Your task to perform on an android device: Go to network settings Image 0: 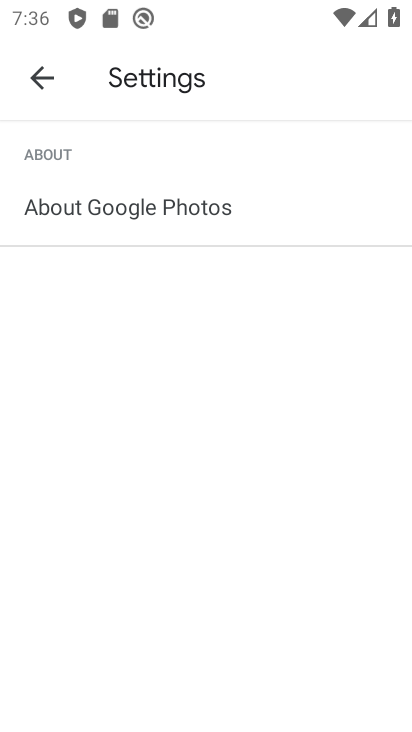
Step 0: drag from (253, 469) to (305, 235)
Your task to perform on an android device: Go to network settings Image 1: 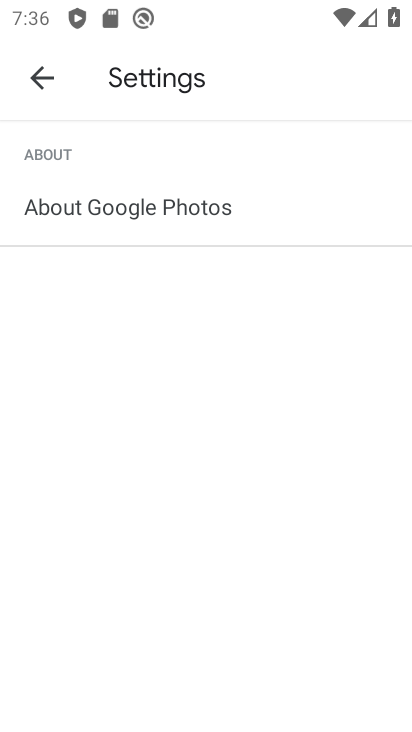
Step 1: press home button
Your task to perform on an android device: Go to network settings Image 2: 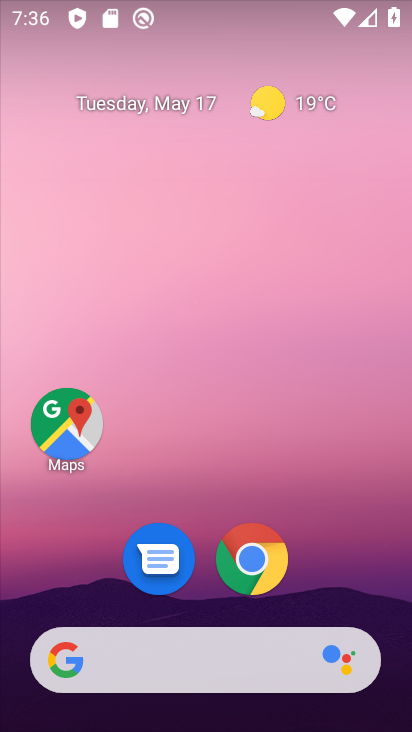
Step 2: drag from (202, 596) to (256, 103)
Your task to perform on an android device: Go to network settings Image 3: 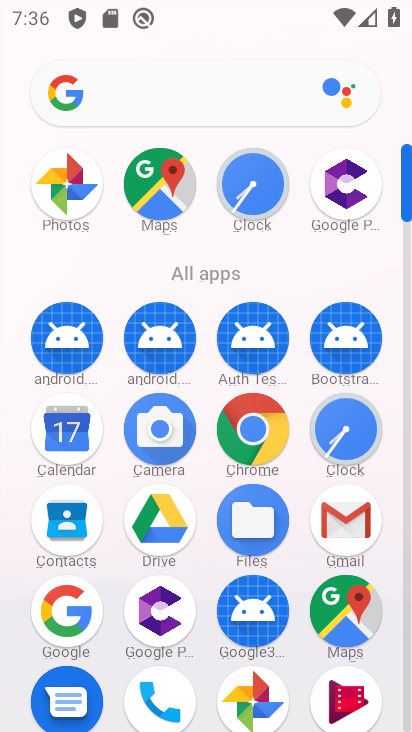
Step 3: drag from (201, 684) to (170, 225)
Your task to perform on an android device: Go to network settings Image 4: 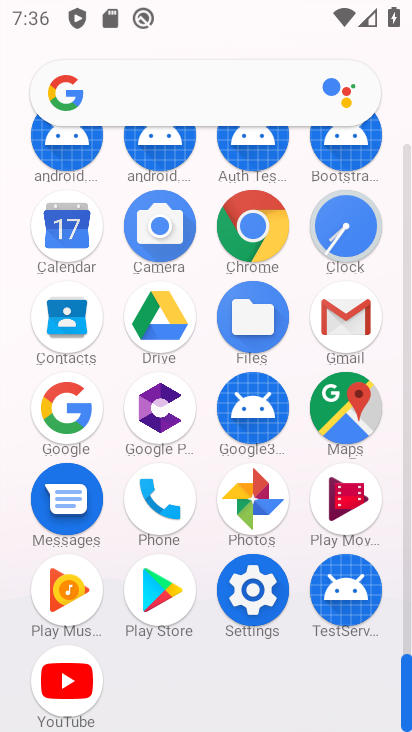
Step 4: click (262, 586)
Your task to perform on an android device: Go to network settings Image 5: 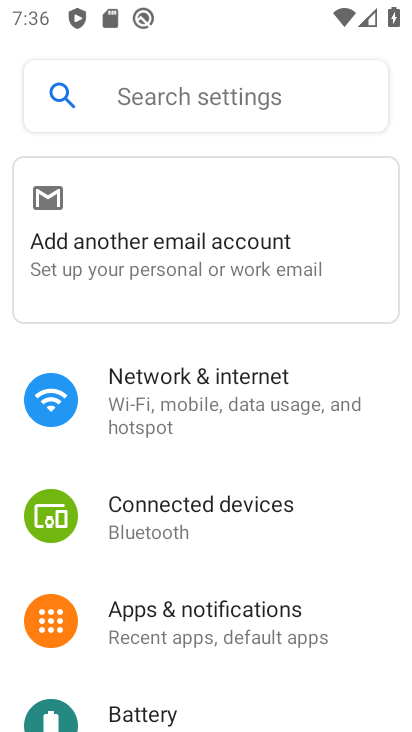
Step 5: click (250, 410)
Your task to perform on an android device: Go to network settings Image 6: 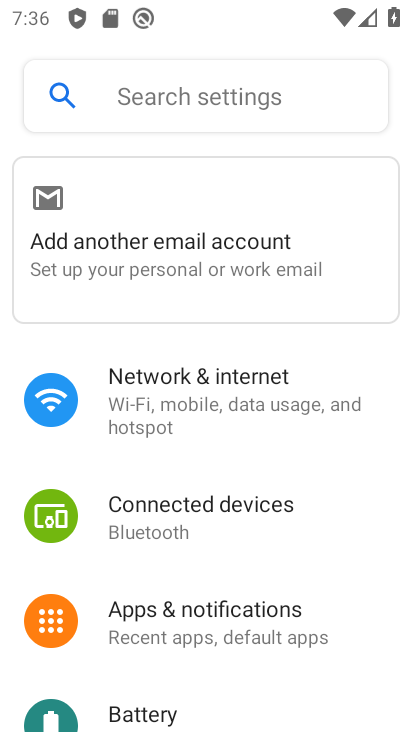
Step 6: click (250, 410)
Your task to perform on an android device: Go to network settings Image 7: 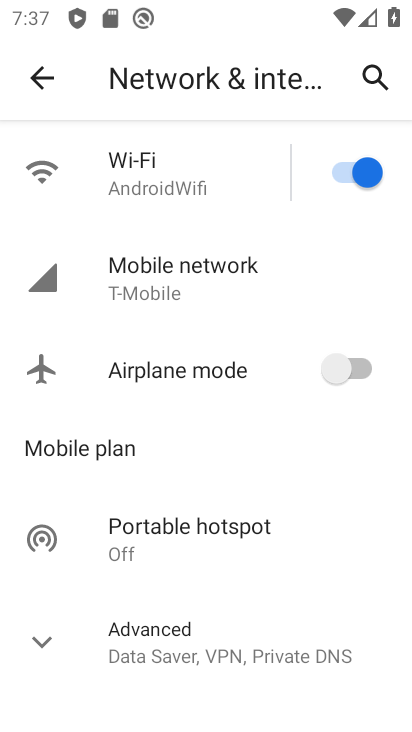
Step 7: drag from (188, 653) to (286, 271)
Your task to perform on an android device: Go to network settings Image 8: 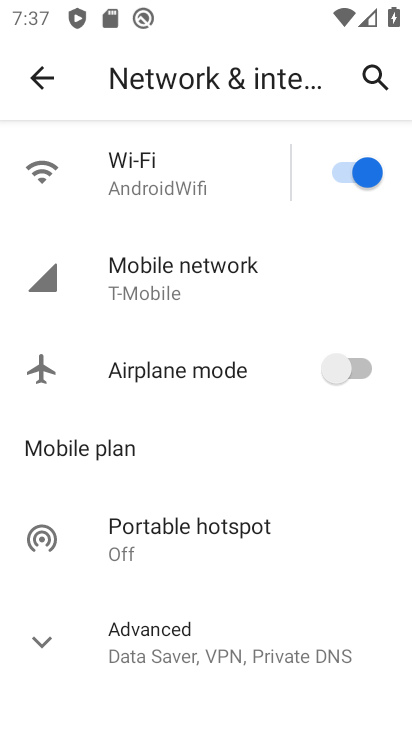
Step 8: click (237, 312)
Your task to perform on an android device: Go to network settings Image 9: 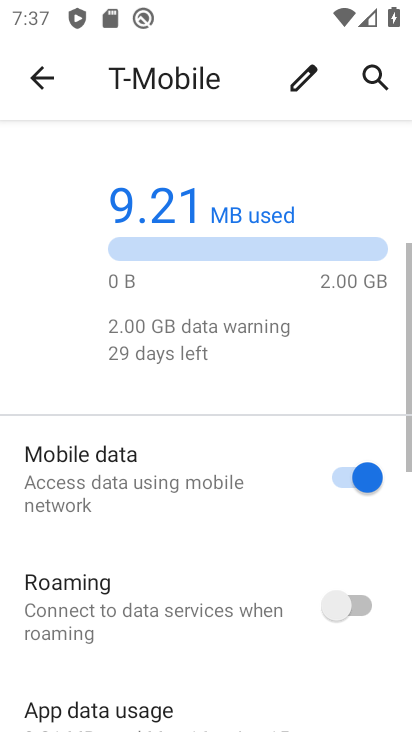
Step 9: task complete